Your task to perform on an android device: open app "Calculator" Image 0: 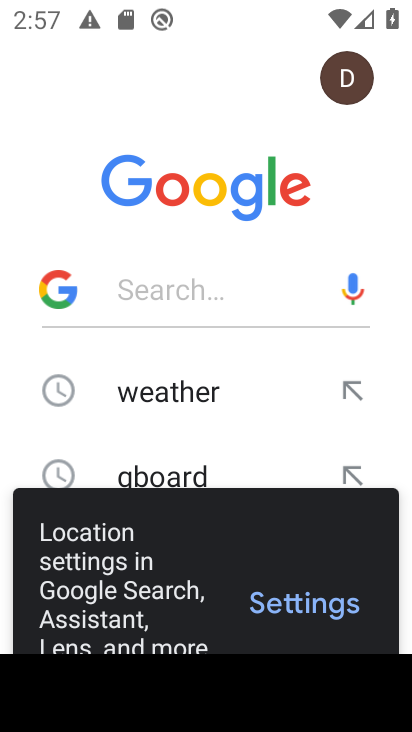
Step 0: press home button
Your task to perform on an android device: open app "Calculator" Image 1: 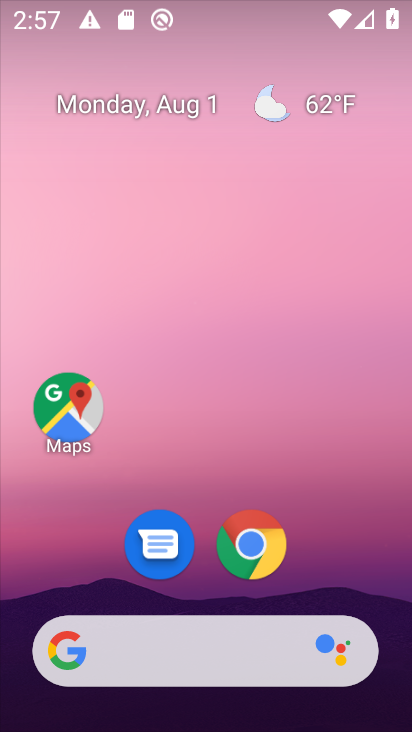
Step 1: drag from (386, 589) to (242, 85)
Your task to perform on an android device: open app "Calculator" Image 2: 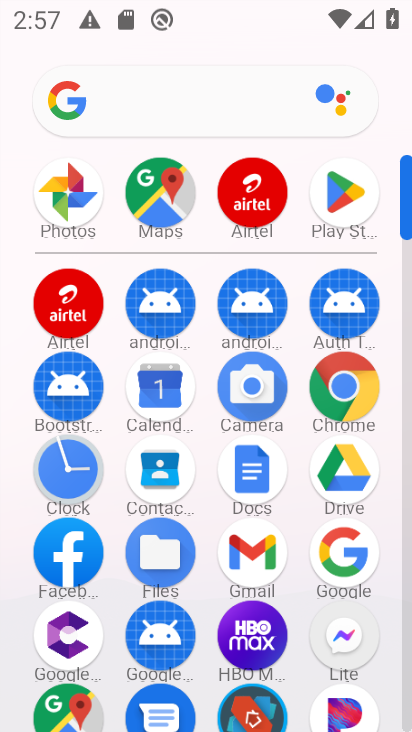
Step 2: click (355, 202)
Your task to perform on an android device: open app "Calculator" Image 3: 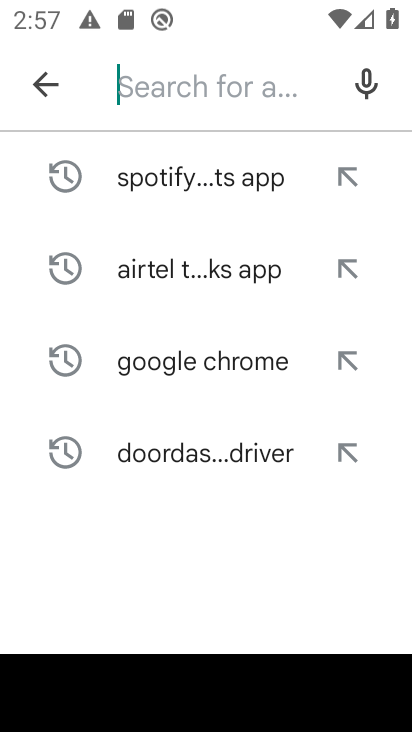
Step 3: type "Calculator"
Your task to perform on an android device: open app "Calculator" Image 4: 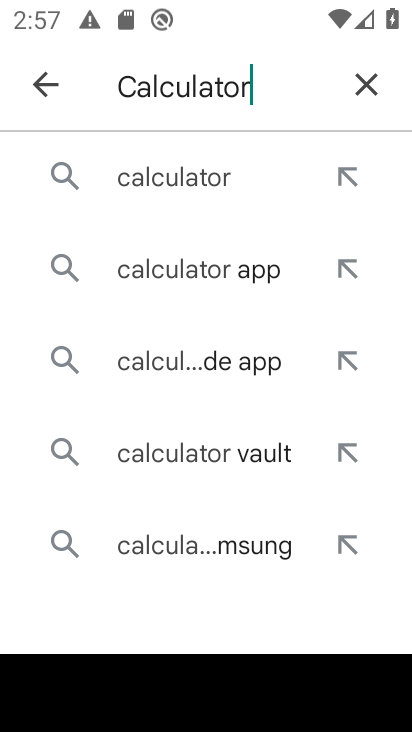
Step 4: click (168, 169)
Your task to perform on an android device: open app "Calculator" Image 5: 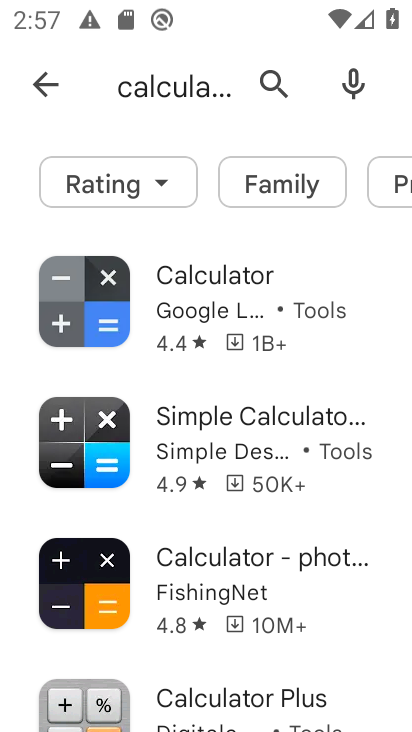
Step 5: click (159, 276)
Your task to perform on an android device: open app "Calculator" Image 6: 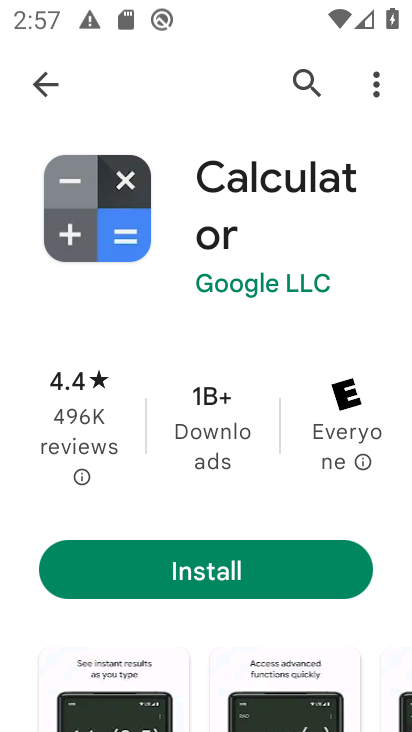
Step 6: task complete